Your task to perform on an android device: Go to Yahoo.com Image 0: 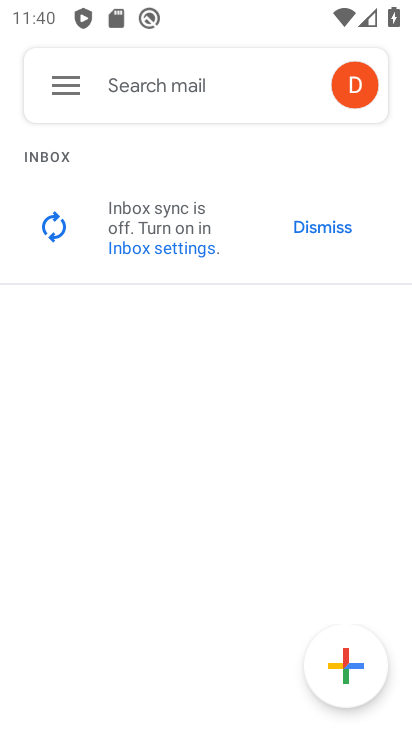
Step 0: type "Yahoo.com"
Your task to perform on an android device: Go to Yahoo.com Image 1: 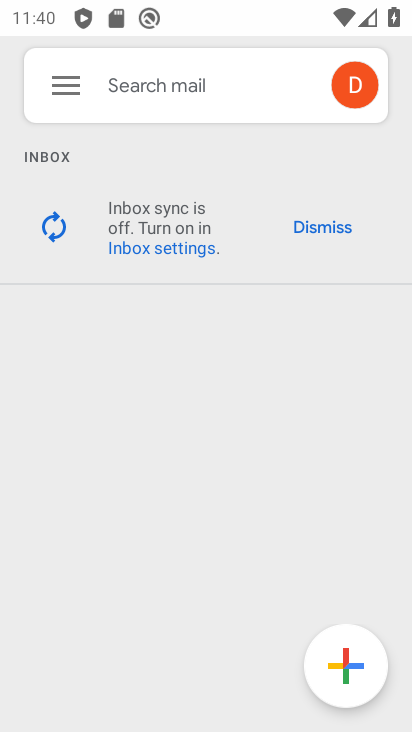
Step 1: click (114, 79)
Your task to perform on an android device: Go to Yahoo.com Image 2: 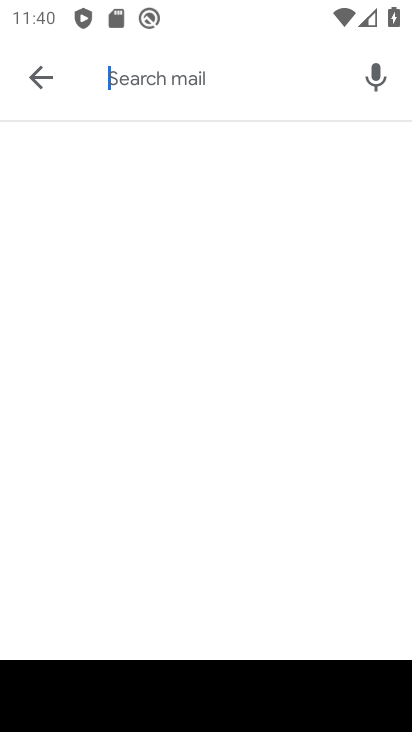
Step 2: type "Yahoo.com"
Your task to perform on an android device: Go to Yahoo.com Image 3: 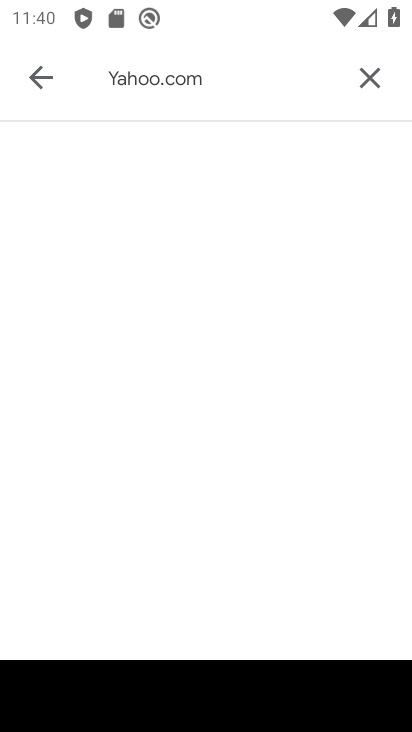
Step 3: click (373, 70)
Your task to perform on an android device: Go to Yahoo.com Image 4: 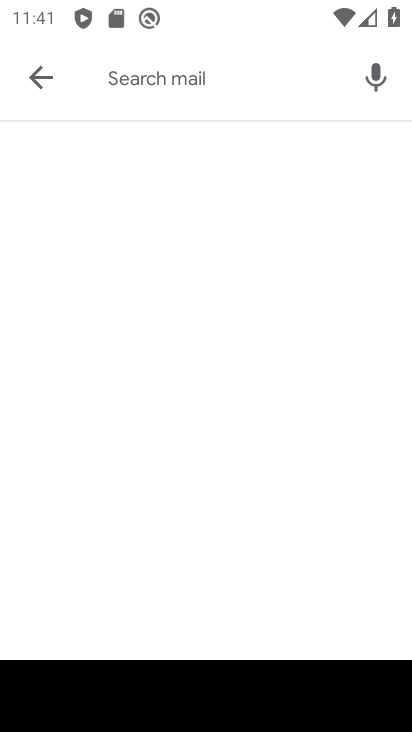
Step 4: click (43, 70)
Your task to perform on an android device: Go to Yahoo.com Image 5: 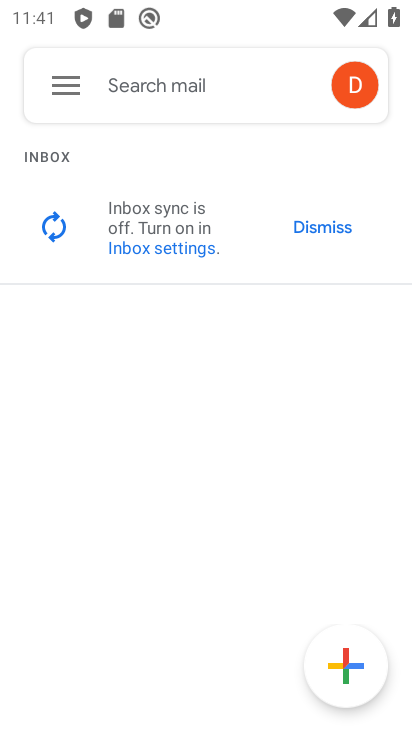
Step 5: press back button
Your task to perform on an android device: Go to Yahoo.com Image 6: 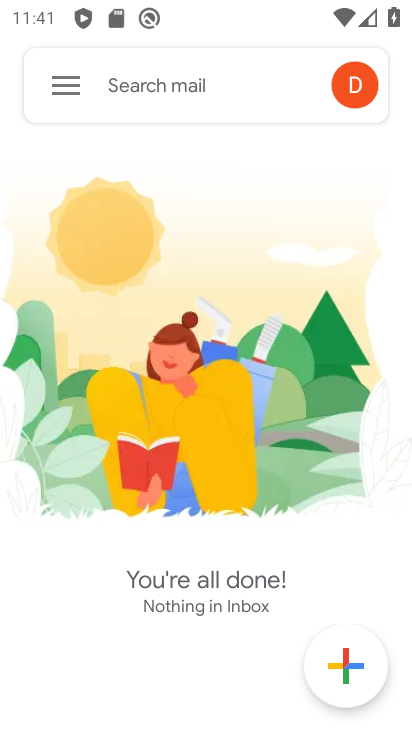
Step 6: press home button
Your task to perform on an android device: Go to Yahoo.com Image 7: 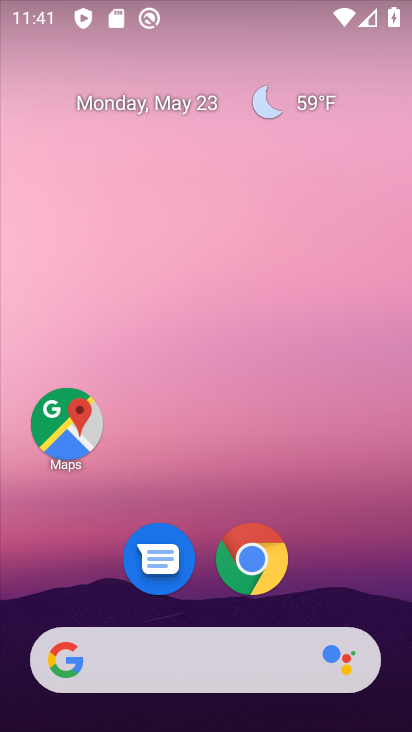
Step 7: click (242, 572)
Your task to perform on an android device: Go to Yahoo.com Image 8: 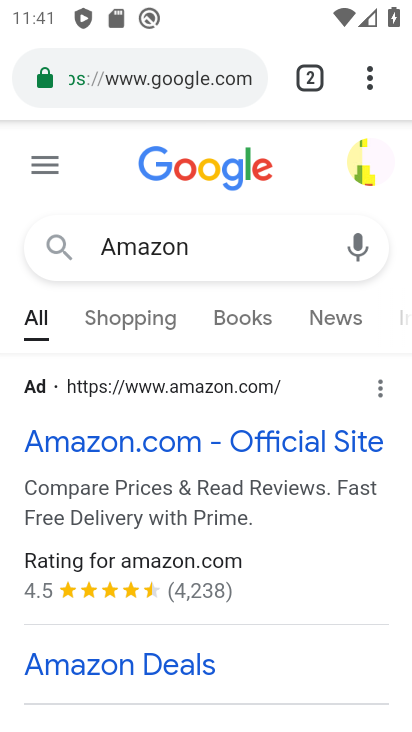
Step 8: click (254, 73)
Your task to perform on an android device: Go to Yahoo.com Image 9: 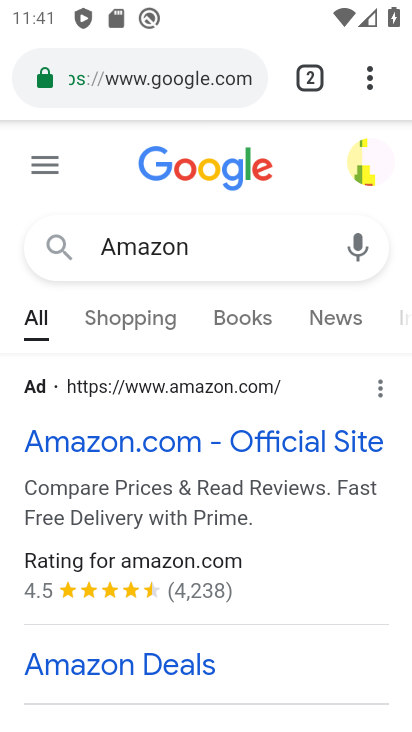
Step 9: click (248, 75)
Your task to perform on an android device: Go to Yahoo.com Image 10: 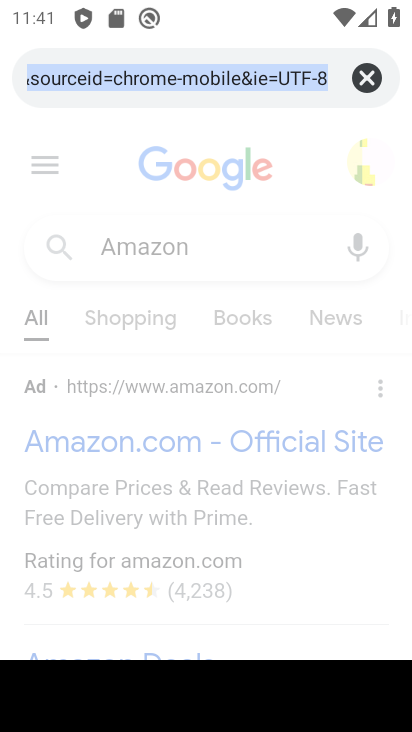
Step 10: click (358, 72)
Your task to perform on an android device: Go to Yahoo.com Image 11: 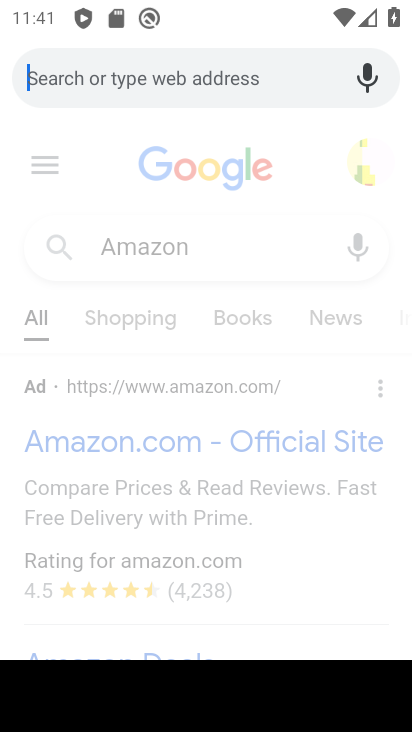
Step 11: type "Yahoo.com"
Your task to perform on an android device: Go to Yahoo.com Image 12: 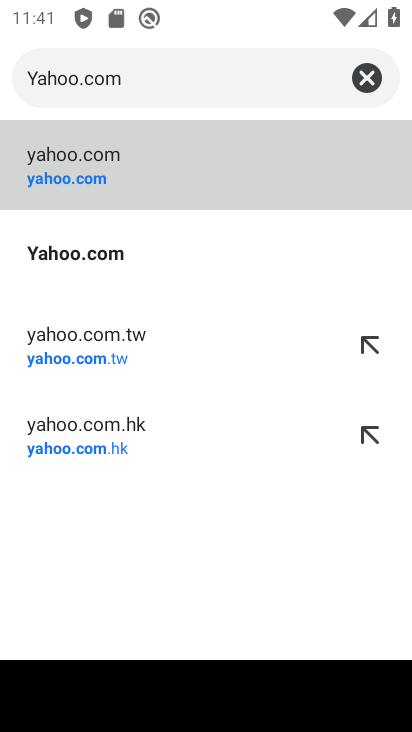
Step 12: click (69, 258)
Your task to perform on an android device: Go to Yahoo.com Image 13: 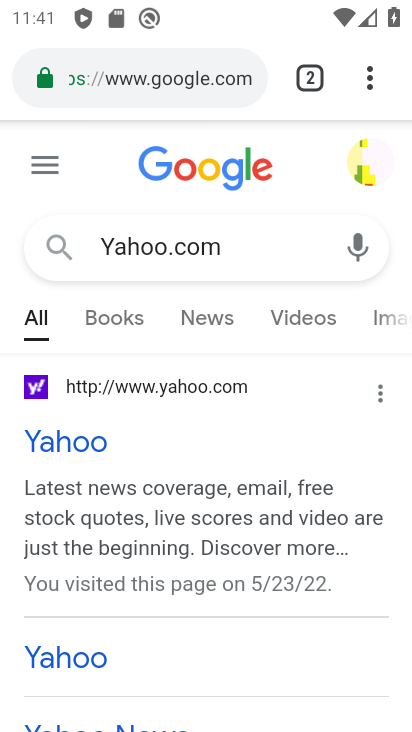
Step 13: task complete